Your task to perform on an android device: check data usage Image 0: 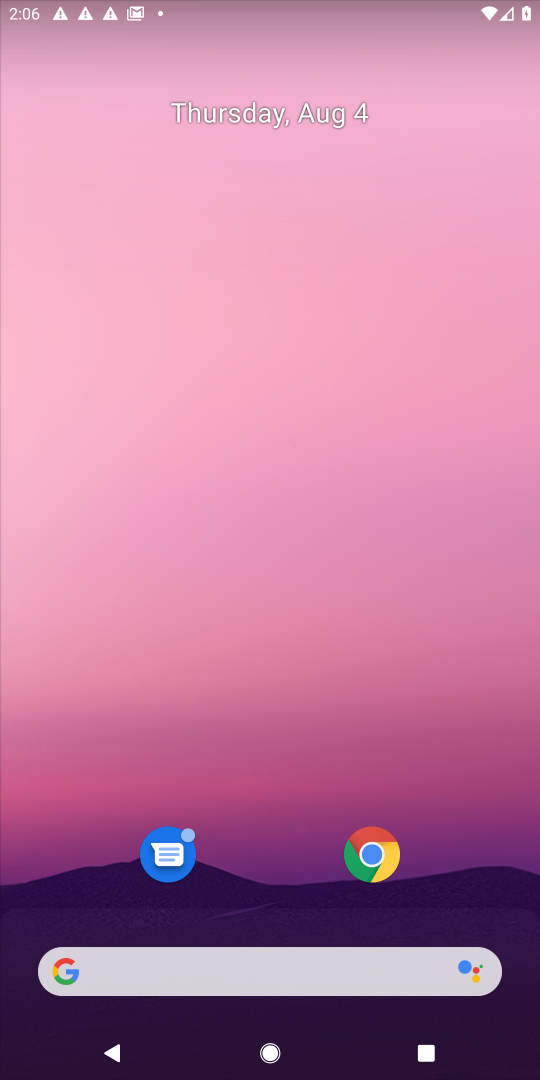
Step 0: drag from (257, 914) to (292, 175)
Your task to perform on an android device: check data usage Image 1: 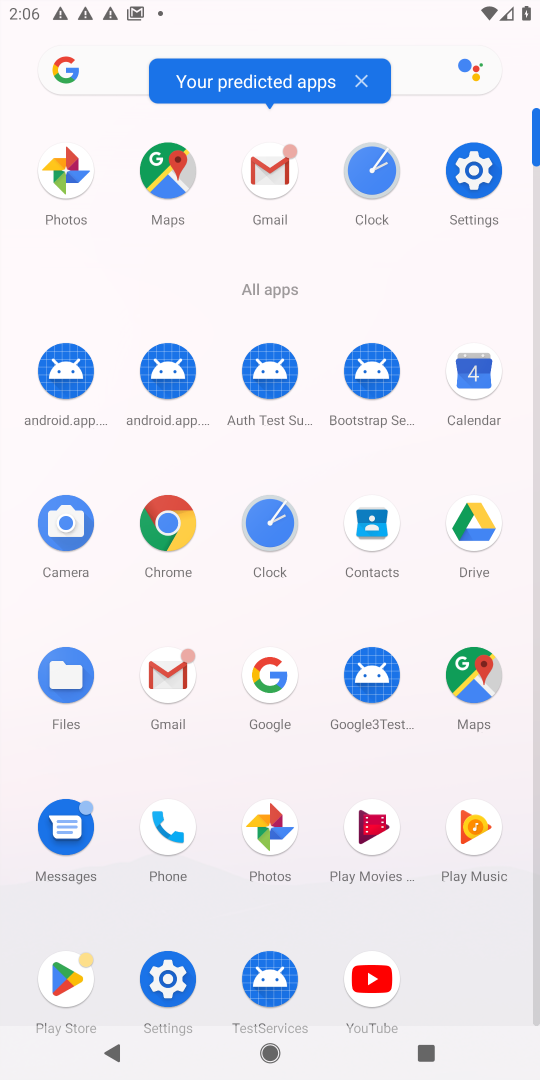
Step 1: click (458, 163)
Your task to perform on an android device: check data usage Image 2: 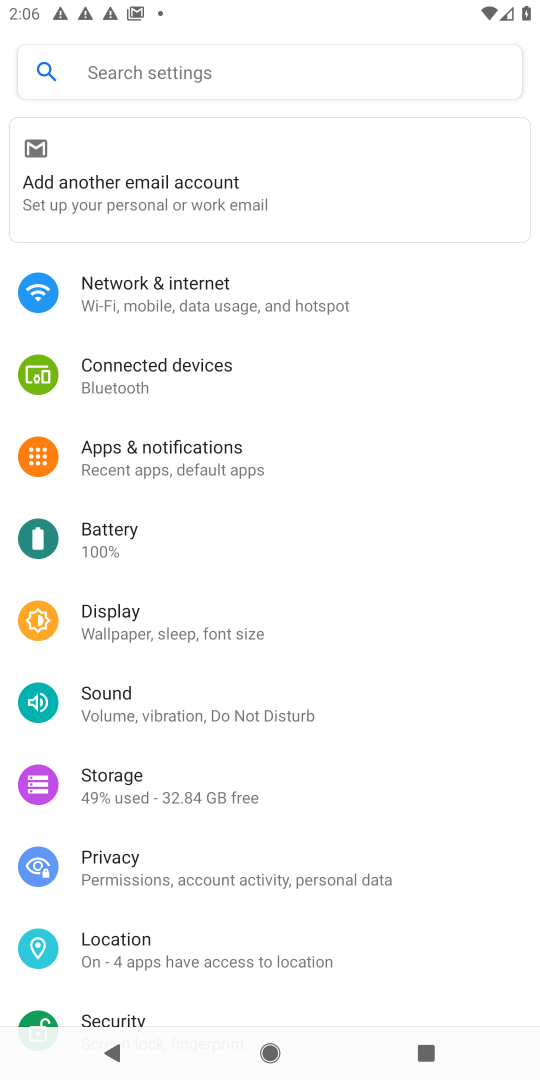
Step 2: click (232, 302)
Your task to perform on an android device: check data usage Image 3: 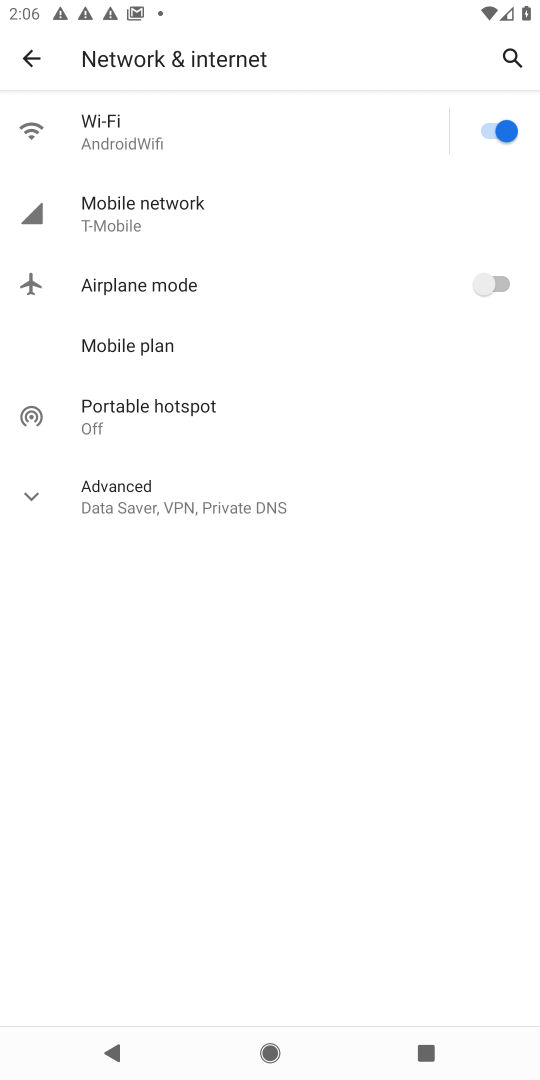
Step 3: click (132, 203)
Your task to perform on an android device: check data usage Image 4: 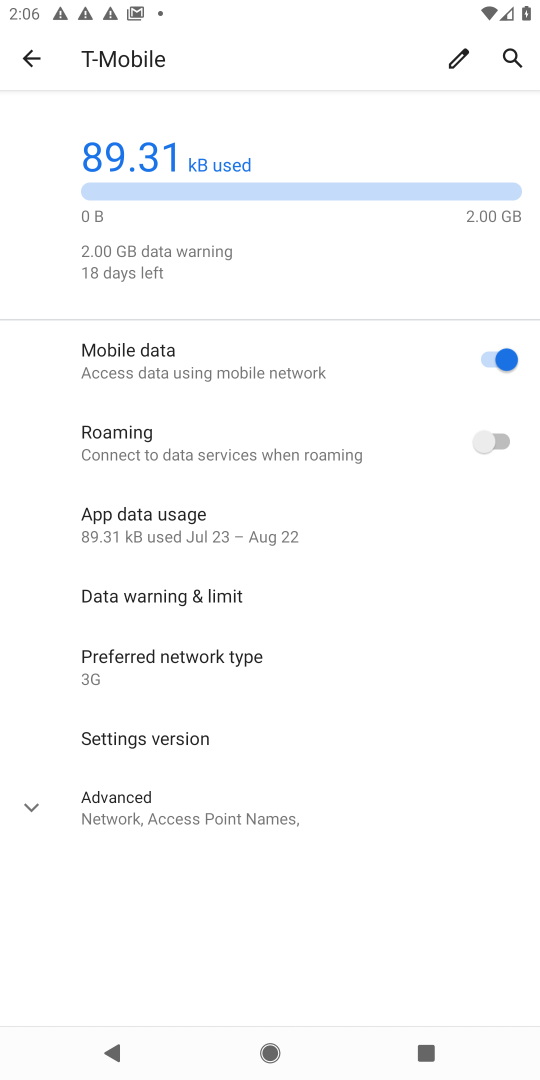
Step 4: click (114, 802)
Your task to perform on an android device: check data usage Image 5: 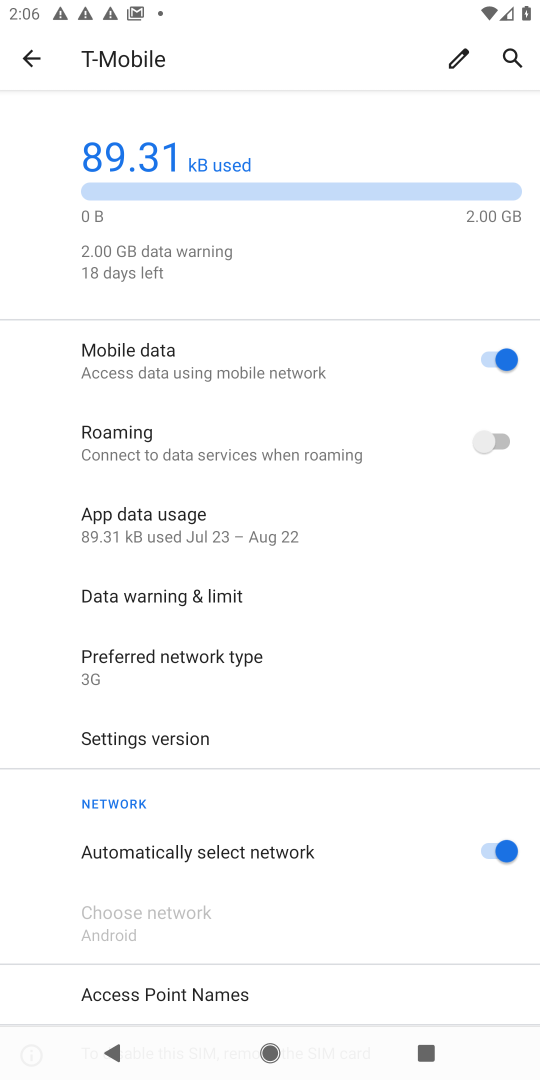
Step 5: task complete